Your task to perform on an android device: turn on wifi Image 0: 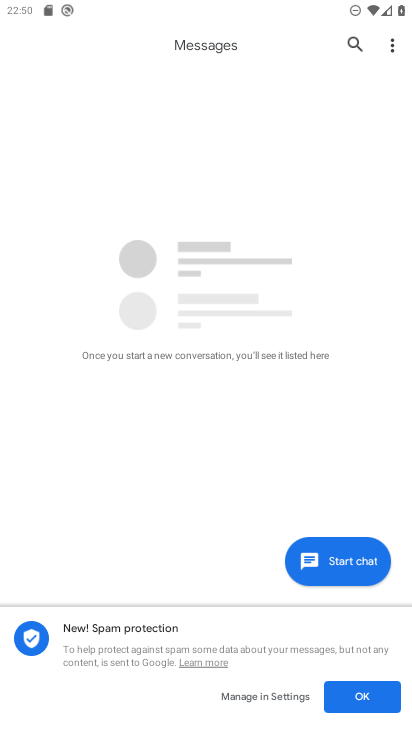
Step 0: press home button
Your task to perform on an android device: turn on wifi Image 1: 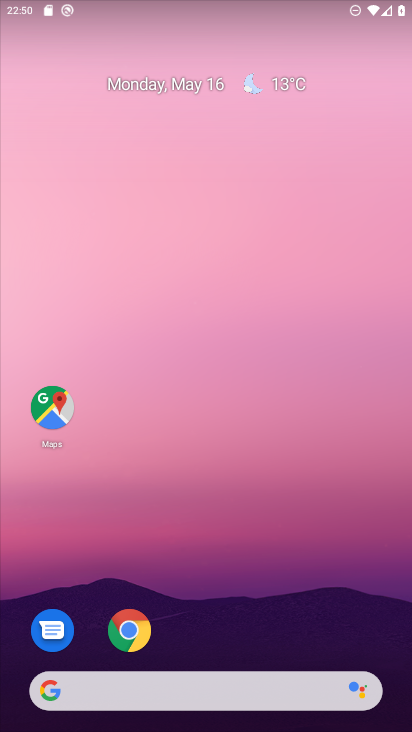
Step 1: drag from (260, 619) to (286, 81)
Your task to perform on an android device: turn on wifi Image 2: 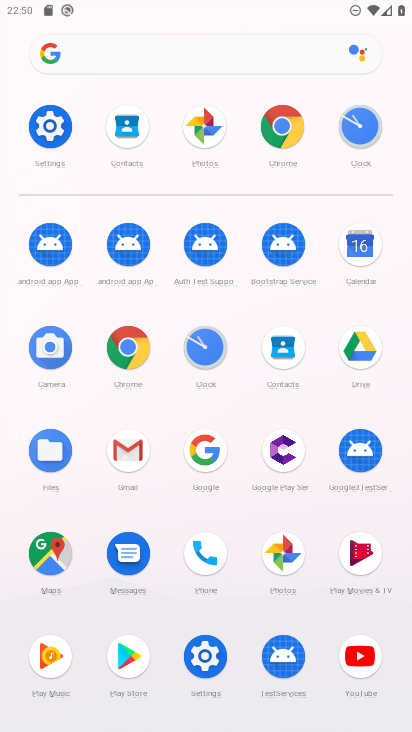
Step 2: click (212, 658)
Your task to perform on an android device: turn on wifi Image 3: 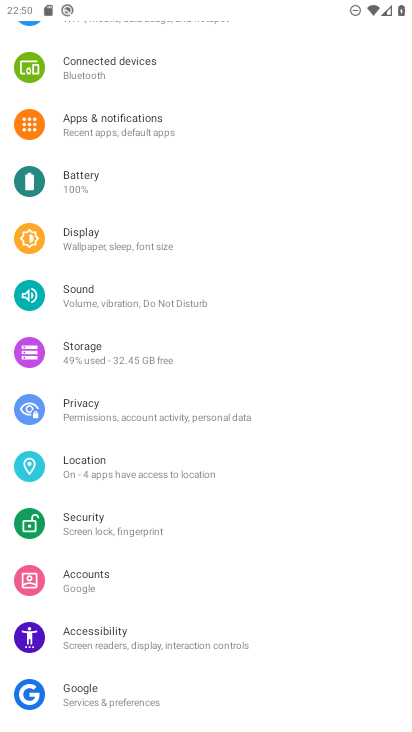
Step 3: drag from (138, 96) to (144, 417)
Your task to perform on an android device: turn on wifi Image 4: 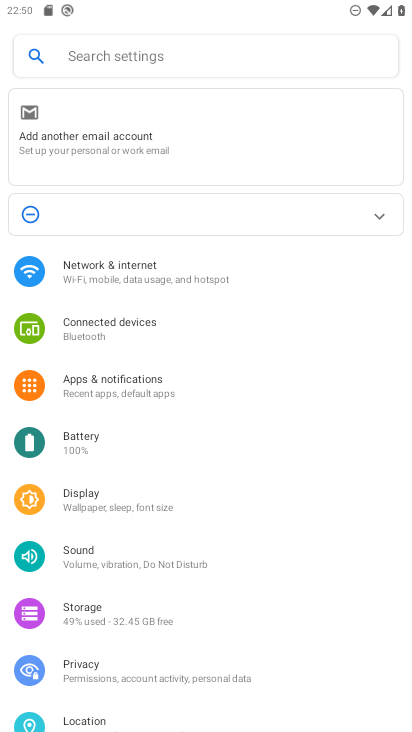
Step 4: click (106, 279)
Your task to perform on an android device: turn on wifi Image 5: 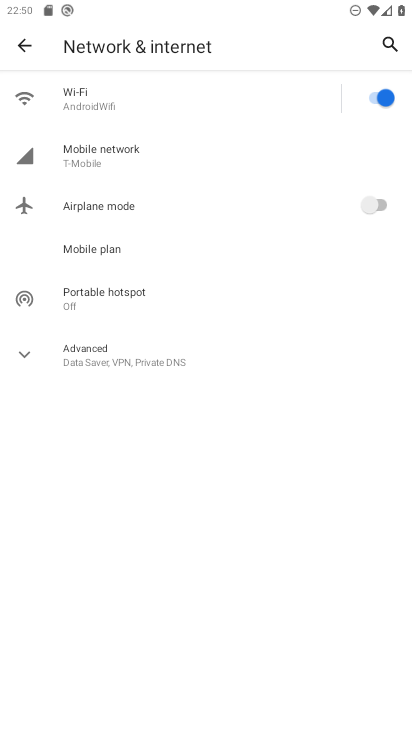
Step 5: task complete